Your task to perform on an android device: delete a single message in the gmail app Image 0: 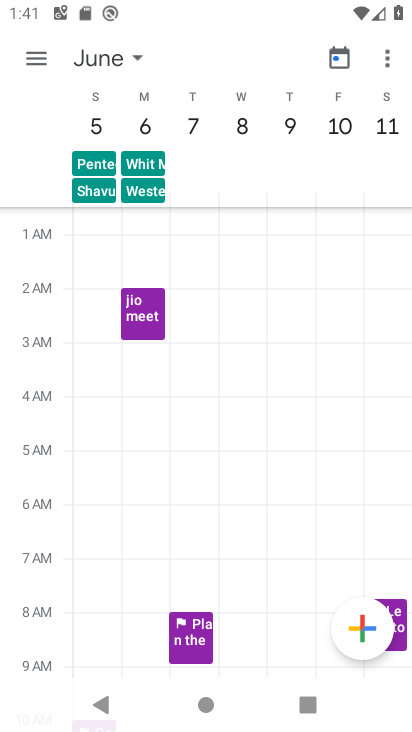
Step 0: press home button
Your task to perform on an android device: delete a single message in the gmail app Image 1: 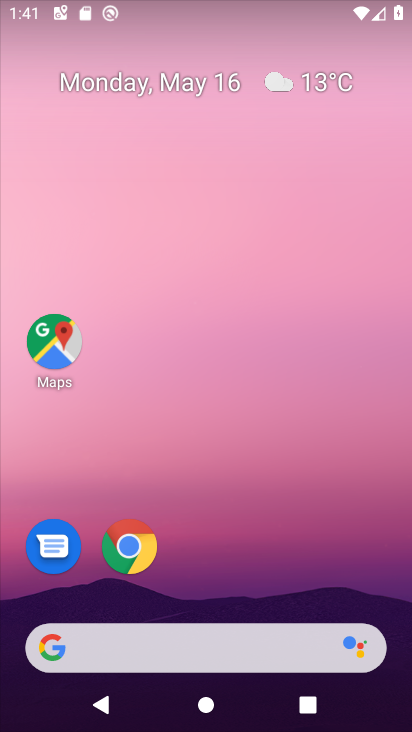
Step 1: drag from (224, 722) to (215, 149)
Your task to perform on an android device: delete a single message in the gmail app Image 2: 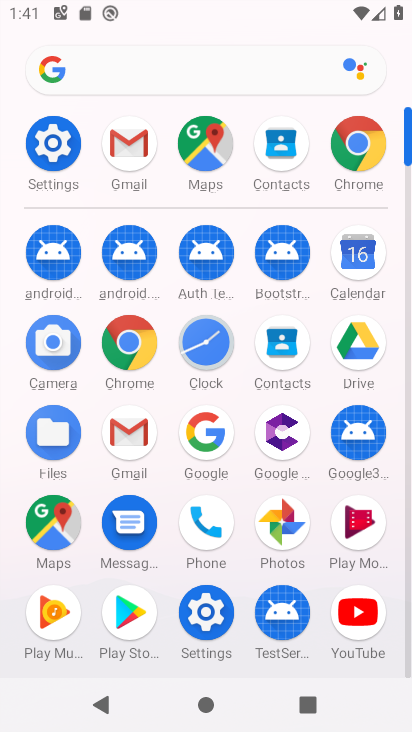
Step 2: click (129, 433)
Your task to perform on an android device: delete a single message in the gmail app Image 3: 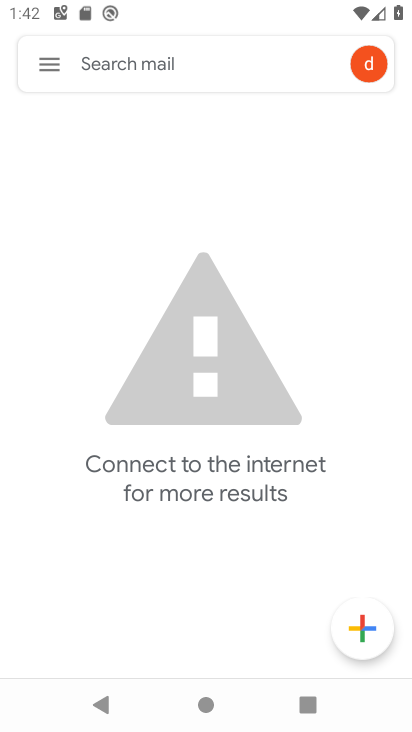
Step 3: click (43, 65)
Your task to perform on an android device: delete a single message in the gmail app Image 4: 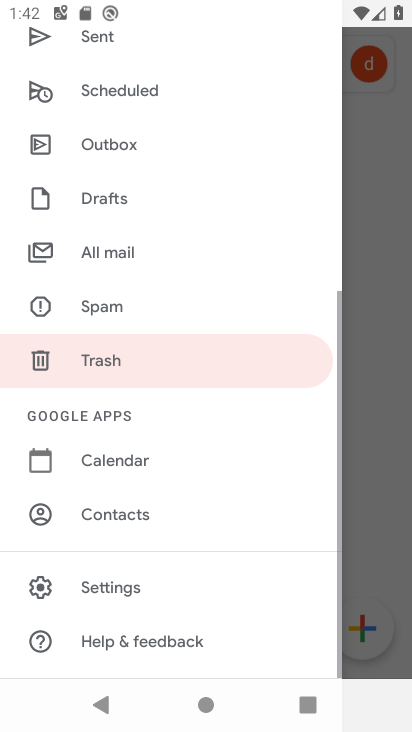
Step 4: drag from (184, 117) to (170, 675)
Your task to perform on an android device: delete a single message in the gmail app Image 5: 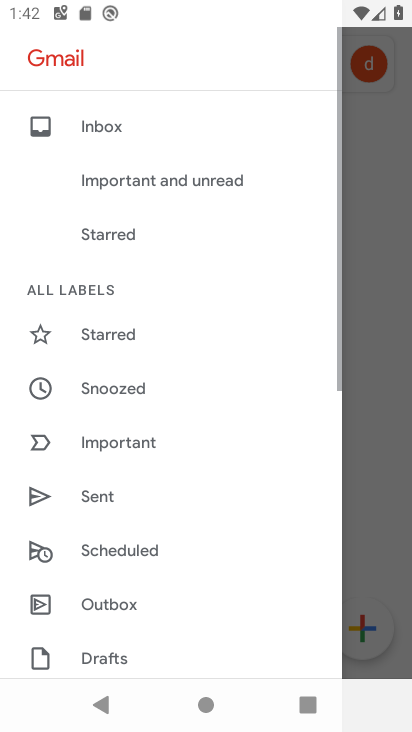
Step 5: click (121, 124)
Your task to perform on an android device: delete a single message in the gmail app Image 6: 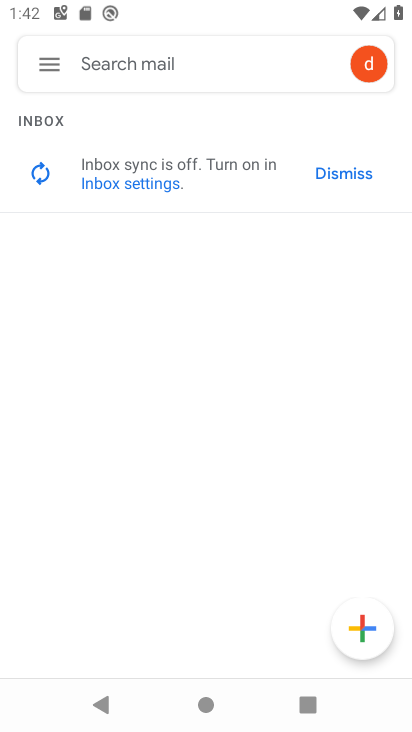
Step 6: task complete